Your task to perform on an android device: toggle notifications settings in the gmail app Image 0: 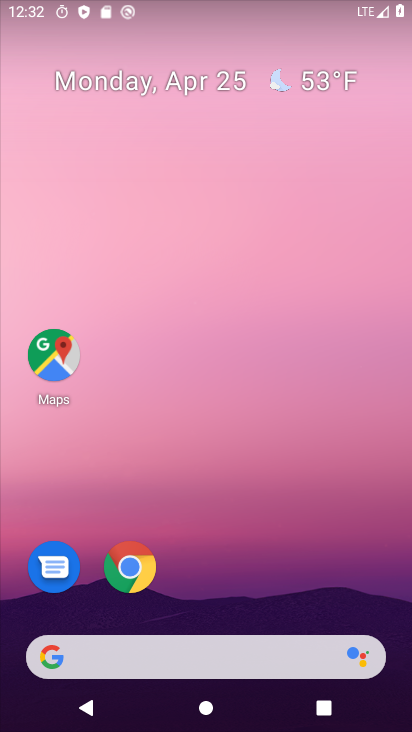
Step 0: drag from (312, 573) to (355, 35)
Your task to perform on an android device: toggle notifications settings in the gmail app Image 1: 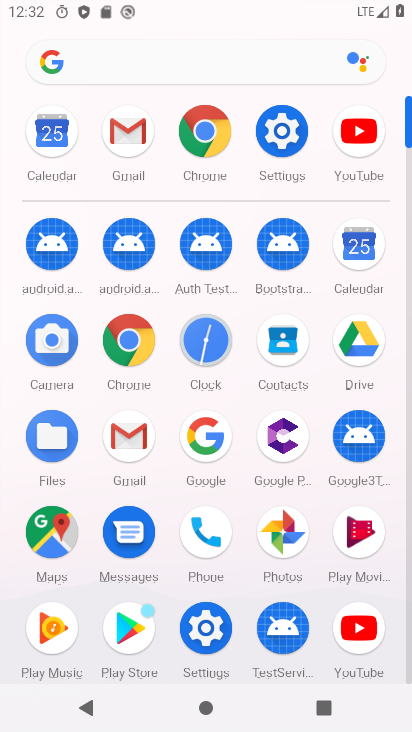
Step 1: click (126, 125)
Your task to perform on an android device: toggle notifications settings in the gmail app Image 2: 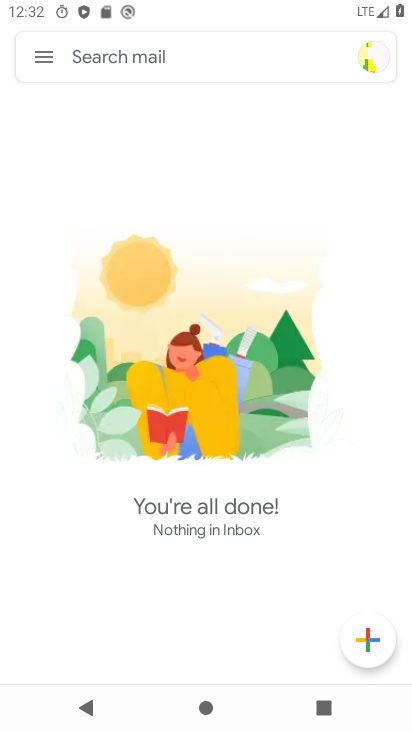
Step 2: click (38, 57)
Your task to perform on an android device: toggle notifications settings in the gmail app Image 3: 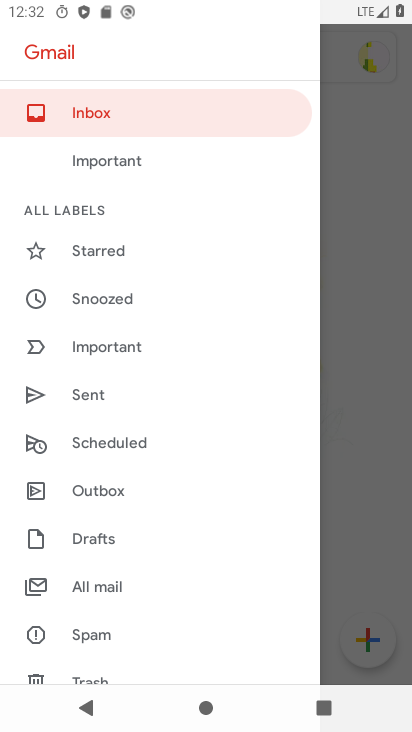
Step 3: drag from (187, 551) to (197, 255)
Your task to perform on an android device: toggle notifications settings in the gmail app Image 4: 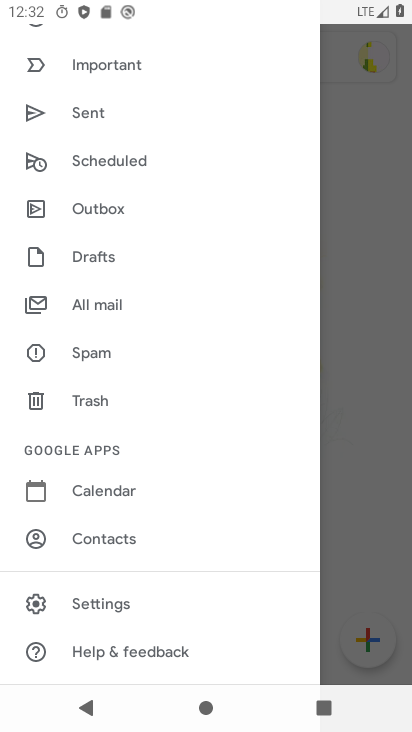
Step 4: click (125, 591)
Your task to perform on an android device: toggle notifications settings in the gmail app Image 5: 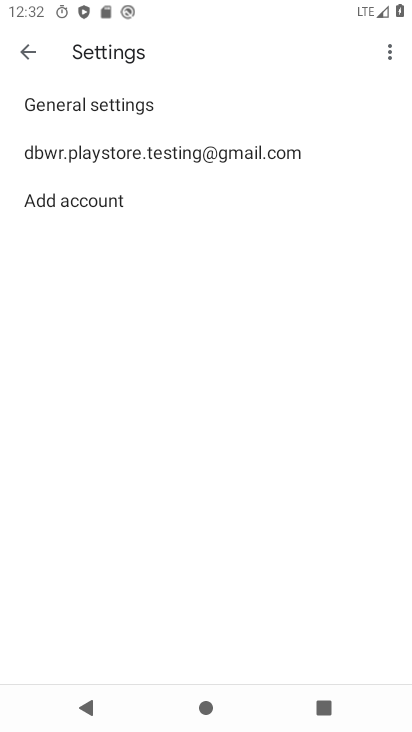
Step 5: click (139, 97)
Your task to perform on an android device: toggle notifications settings in the gmail app Image 6: 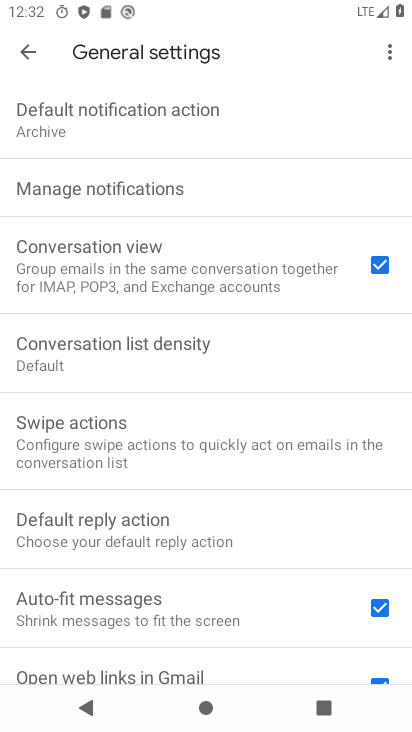
Step 6: click (158, 189)
Your task to perform on an android device: toggle notifications settings in the gmail app Image 7: 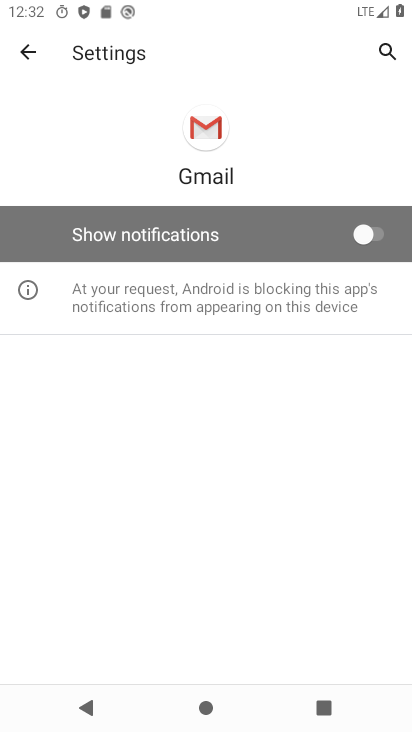
Step 7: click (377, 229)
Your task to perform on an android device: toggle notifications settings in the gmail app Image 8: 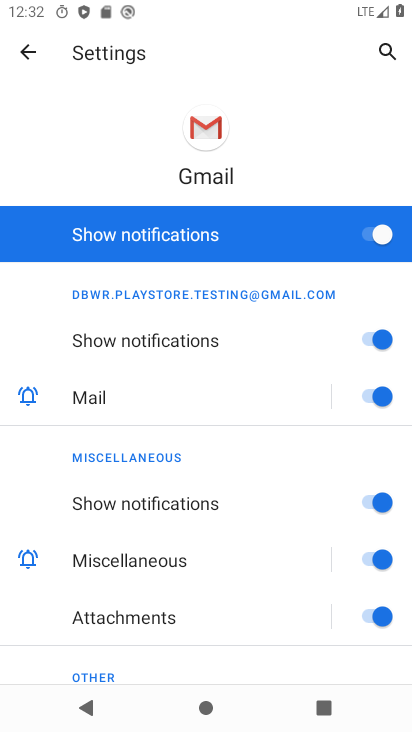
Step 8: task complete